Your task to perform on an android device: check data usage Image 0: 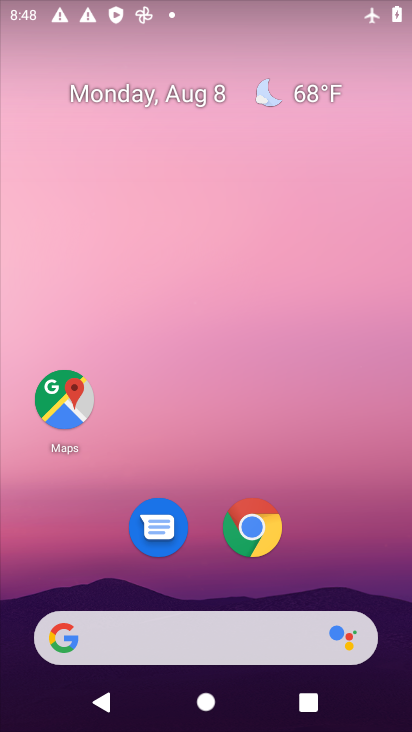
Step 0: drag from (380, 684) to (346, 128)
Your task to perform on an android device: check data usage Image 1: 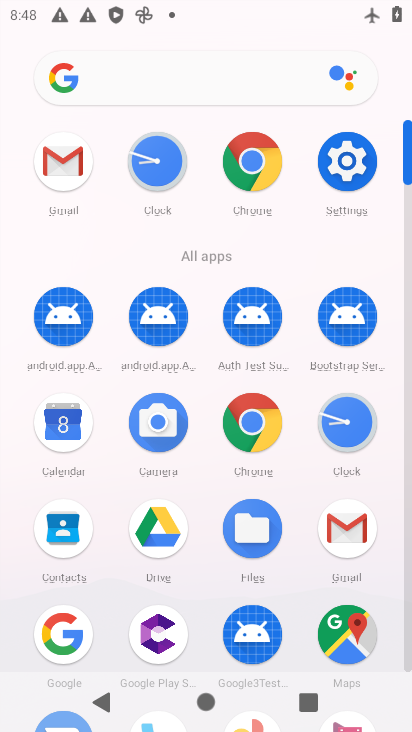
Step 1: click (336, 165)
Your task to perform on an android device: check data usage Image 2: 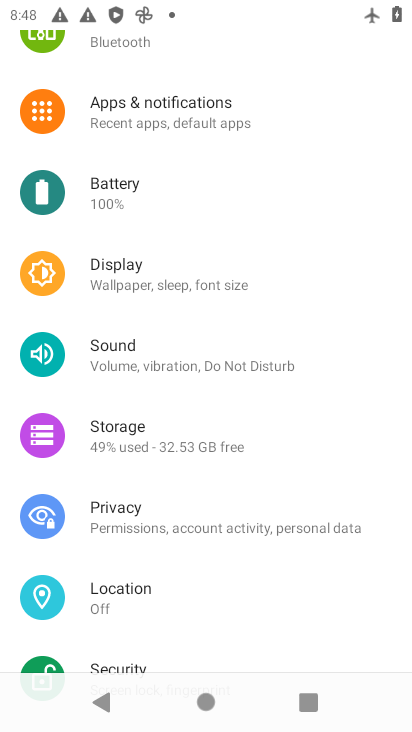
Step 2: drag from (310, 127) to (300, 529)
Your task to perform on an android device: check data usage Image 3: 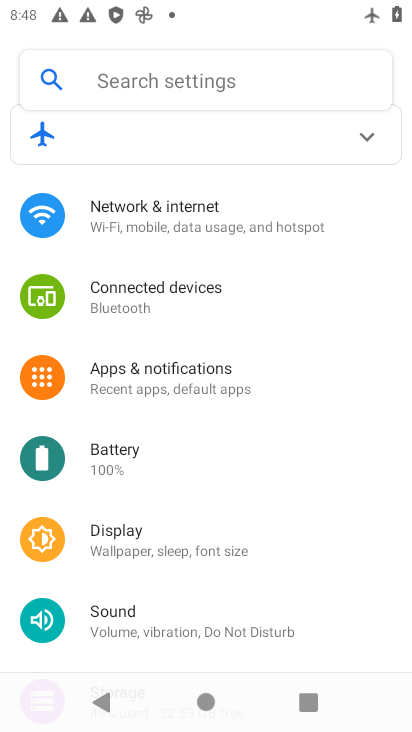
Step 3: click (137, 222)
Your task to perform on an android device: check data usage Image 4: 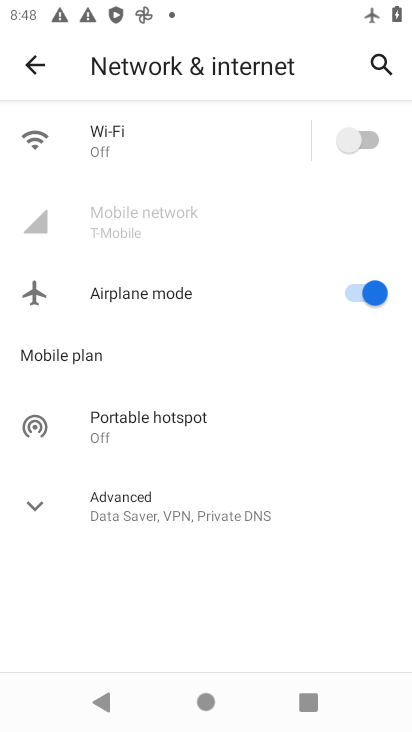
Step 4: task complete